Your task to perform on an android device: Open notification settings Image 0: 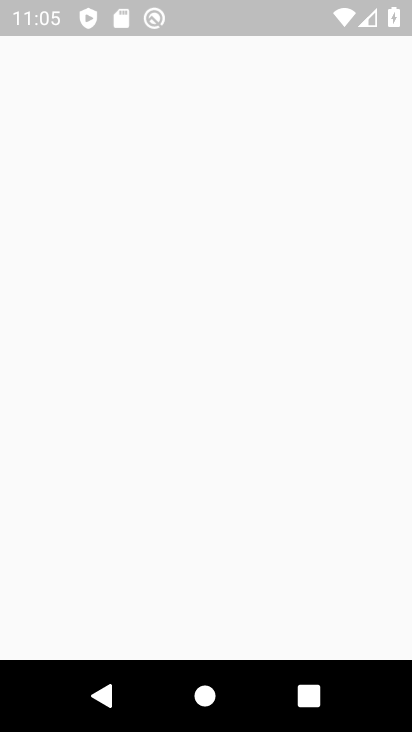
Step 0: press back button
Your task to perform on an android device: Open notification settings Image 1: 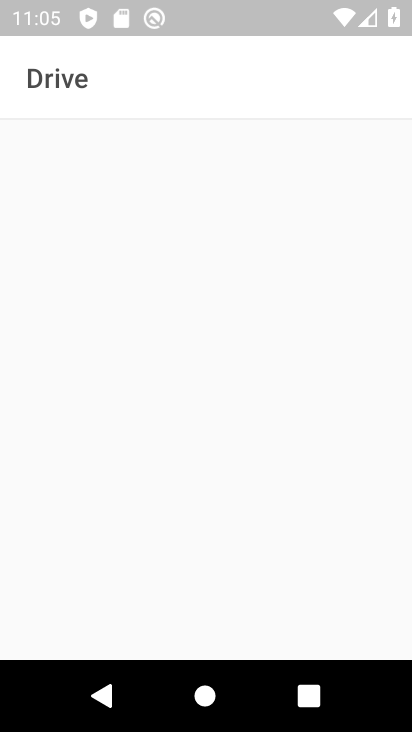
Step 1: press back button
Your task to perform on an android device: Open notification settings Image 2: 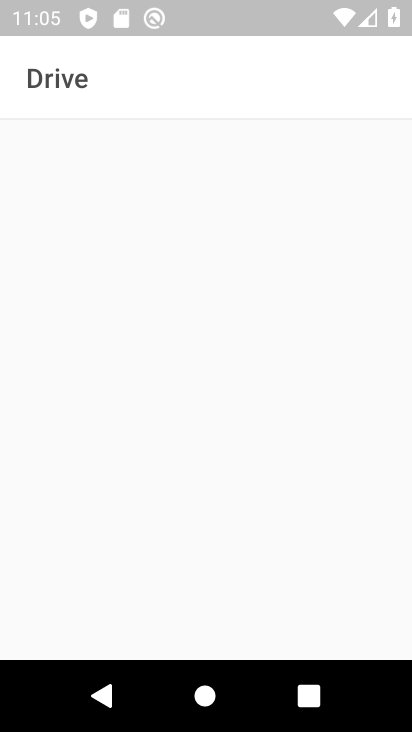
Step 2: click (394, 254)
Your task to perform on an android device: Open notification settings Image 3: 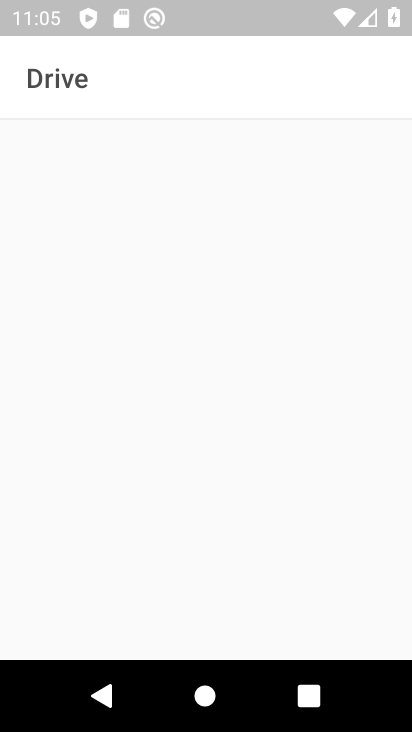
Step 3: press back button
Your task to perform on an android device: Open notification settings Image 4: 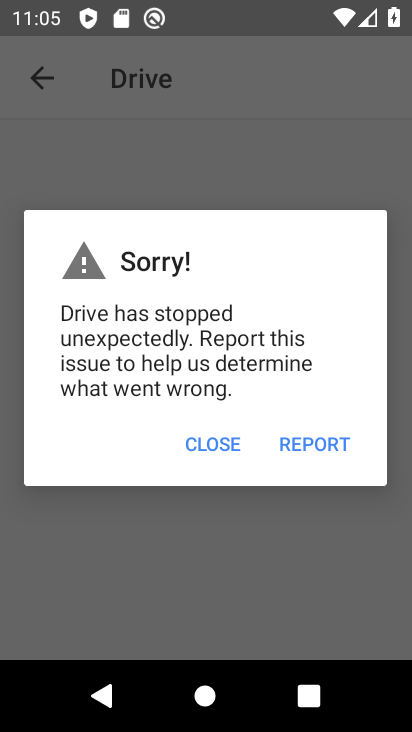
Step 4: click (214, 453)
Your task to perform on an android device: Open notification settings Image 5: 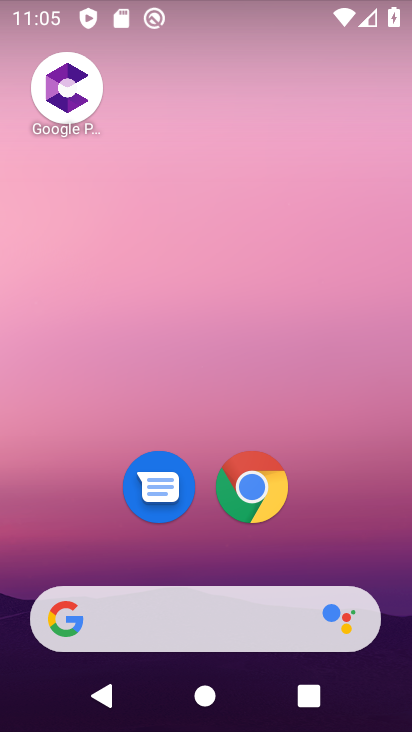
Step 5: drag from (142, 569) to (249, 52)
Your task to perform on an android device: Open notification settings Image 6: 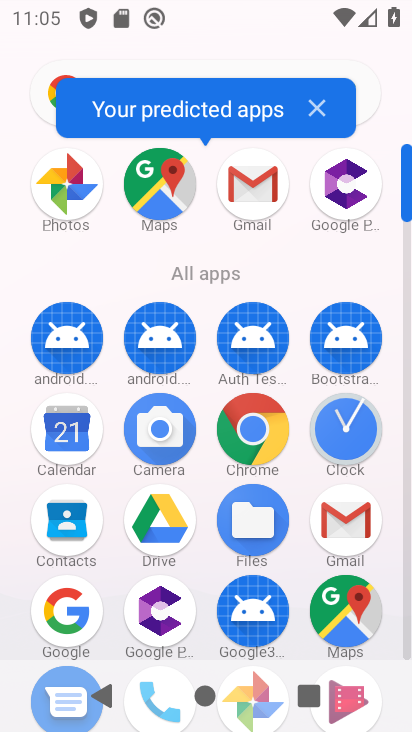
Step 6: drag from (188, 468) to (254, 149)
Your task to perform on an android device: Open notification settings Image 7: 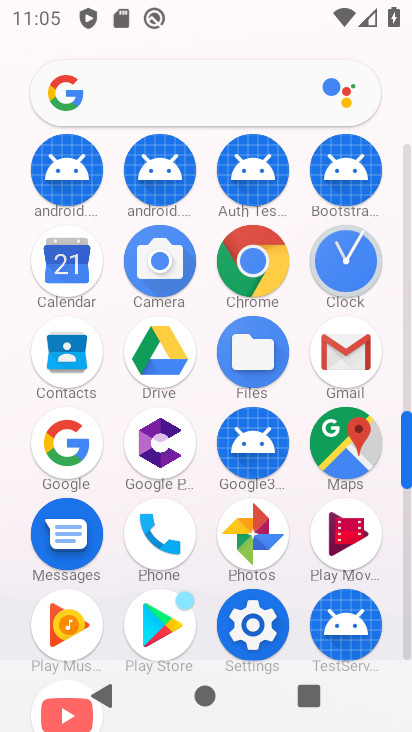
Step 7: click (265, 625)
Your task to perform on an android device: Open notification settings Image 8: 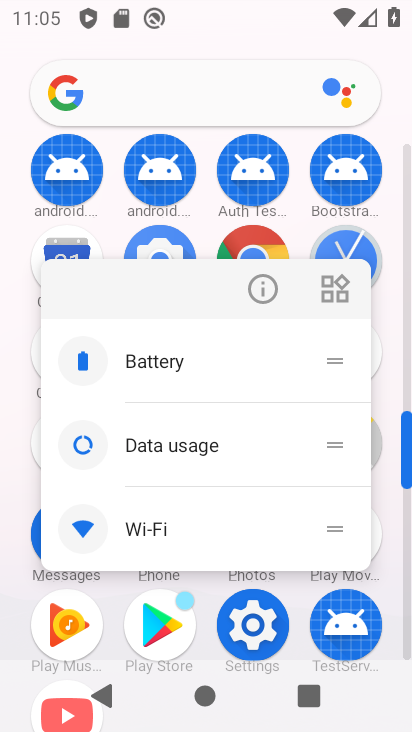
Step 8: click (257, 615)
Your task to perform on an android device: Open notification settings Image 9: 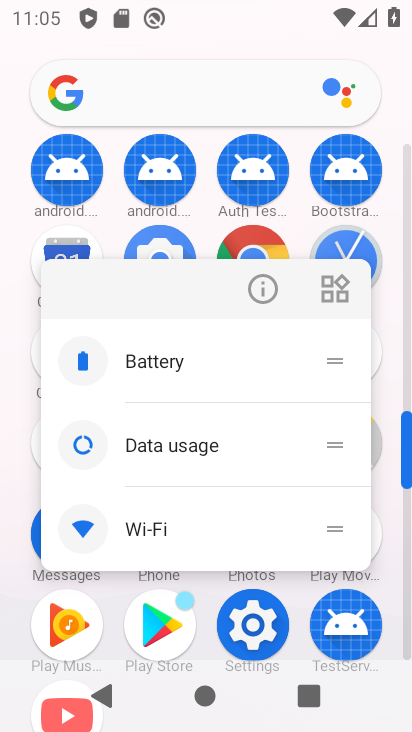
Step 9: click (252, 622)
Your task to perform on an android device: Open notification settings Image 10: 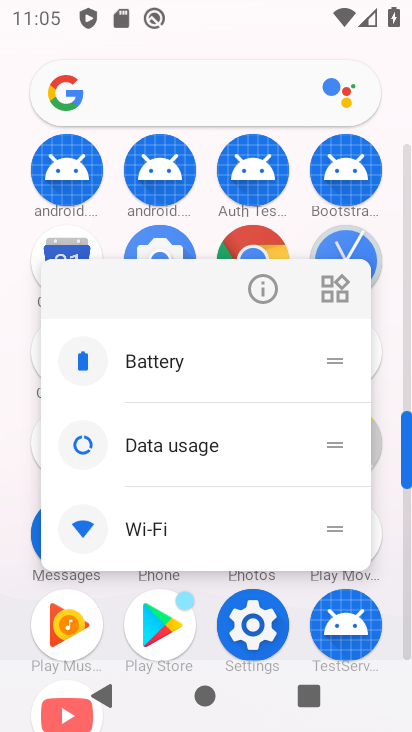
Step 10: click (257, 645)
Your task to perform on an android device: Open notification settings Image 11: 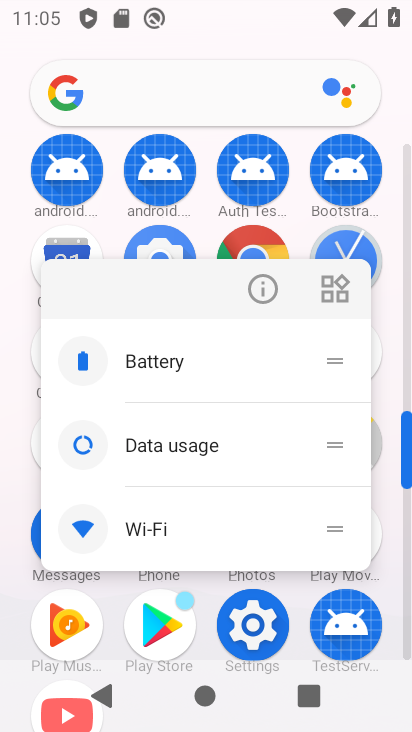
Step 11: click (278, 621)
Your task to perform on an android device: Open notification settings Image 12: 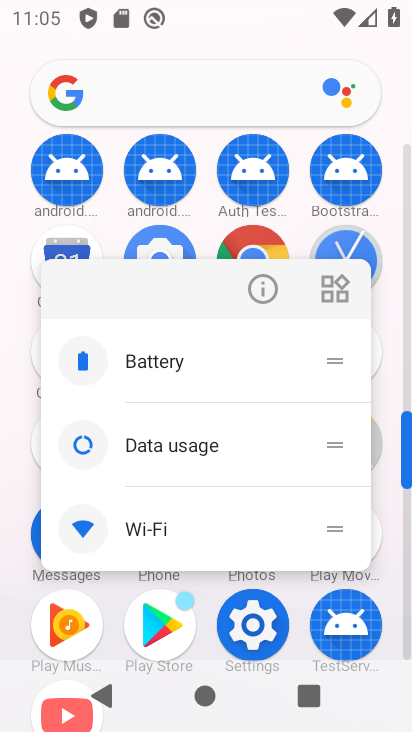
Step 12: click (236, 602)
Your task to perform on an android device: Open notification settings Image 13: 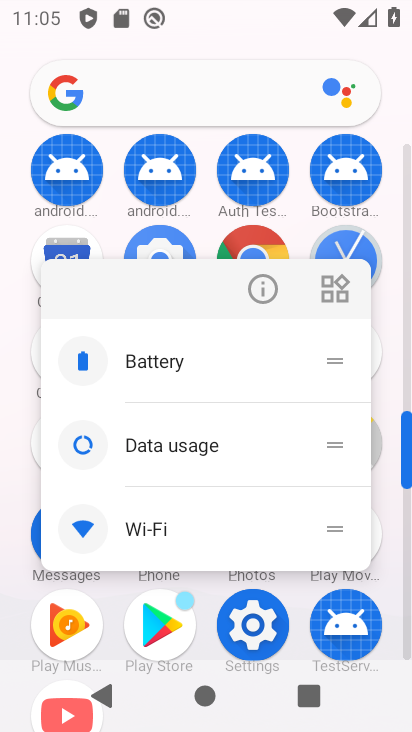
Step 13: click (250, 632)
Your task to perform on an android device: Open notification settings Image 14: 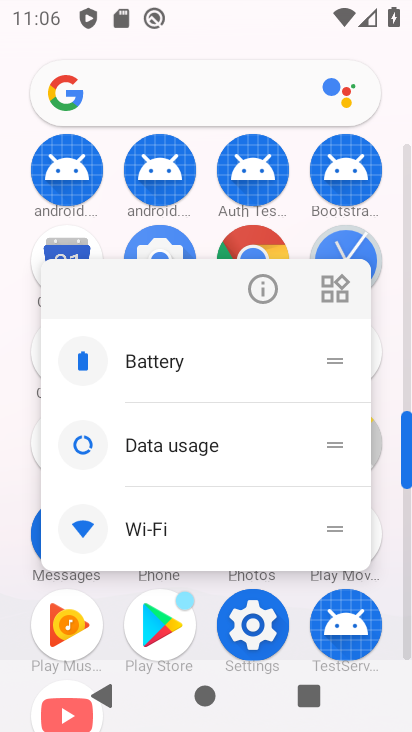
Step 14: click (248, 629)
Your task to perform on an android device: Open notification settings Image 15: 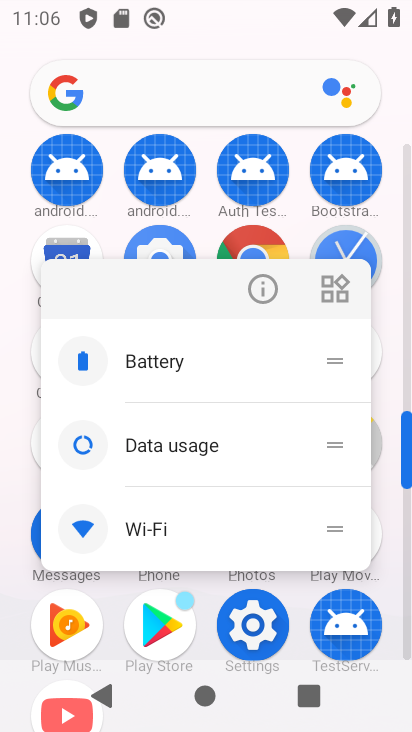
Step 15: click (284, 629)
Your task to perform on an android device: Open notification settings Image 16: 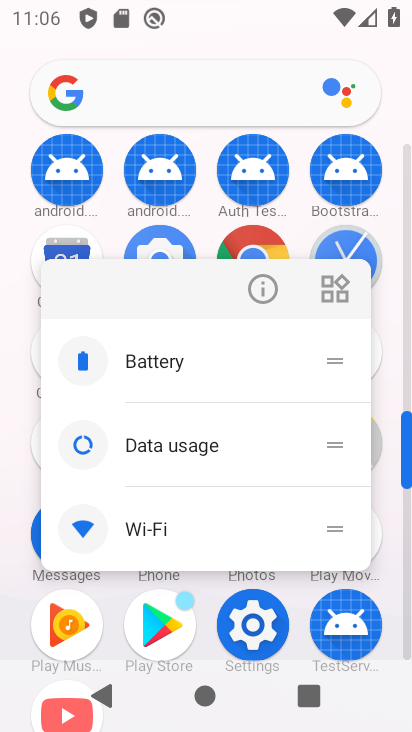
Step 16: click (283, 630)
Your task to perform on an android device: Open notification settings Image 17: 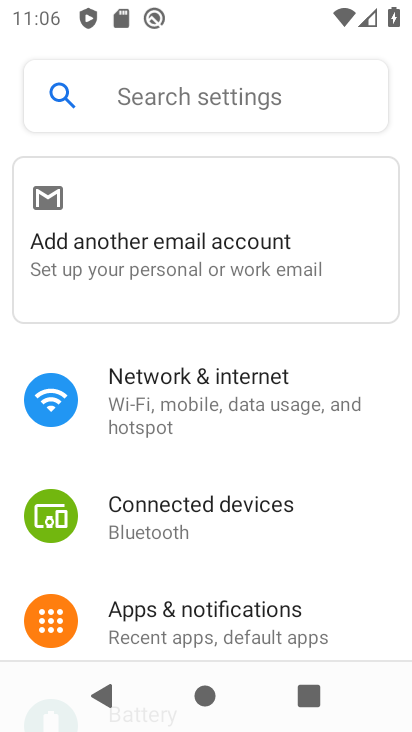
Step 17: click (221, 617)
Your task to perform on an android device: Open notification settings Image 18: 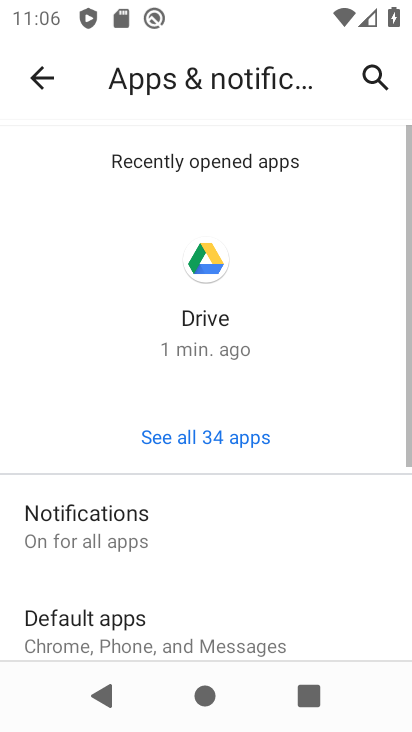
Step 18: task complete